Your task to perform on an android device: Open Maps and search for coffee Image 0: 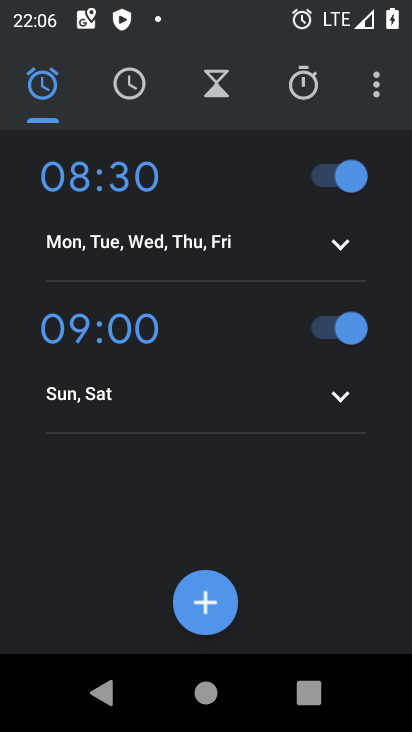
Step 0: press home button
Your task to perform on an android device: Open Maps and search for coffee Image 1: 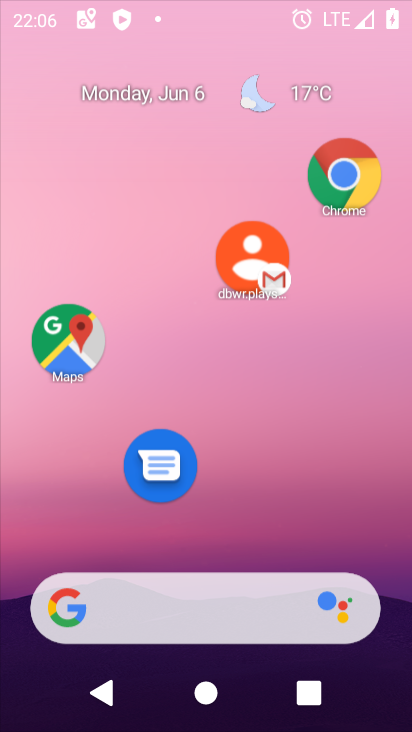
Step 1: drag from (231, 420) to (2, 312)
Your task to perform on an android device: Open Maps and search for coffee Image 2: 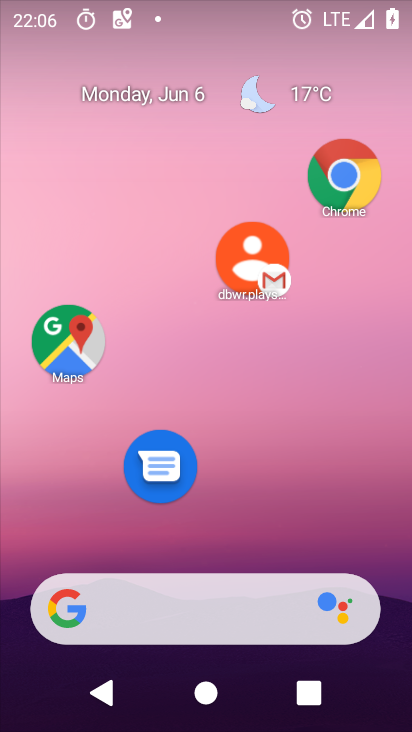
Step 2: click (15, 331)
Your task to perform on an android device: Open Maps and search for coffee Image 3: 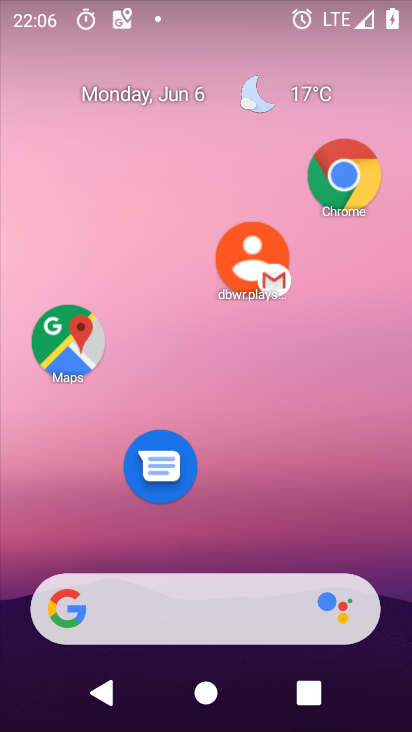
Step 3: click (43, 340)
Your task to perform on an android device: Open Maps and search for coffee Image 4: 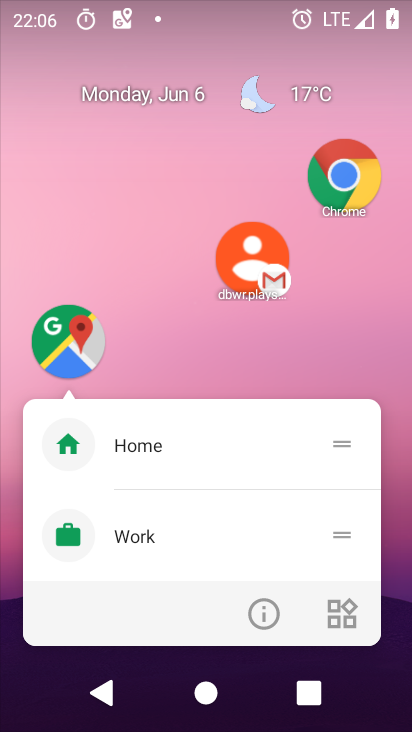
Step 4: click (264, 595)
Your task to perform on an android device: Open Maps and search for coffee Image 5: 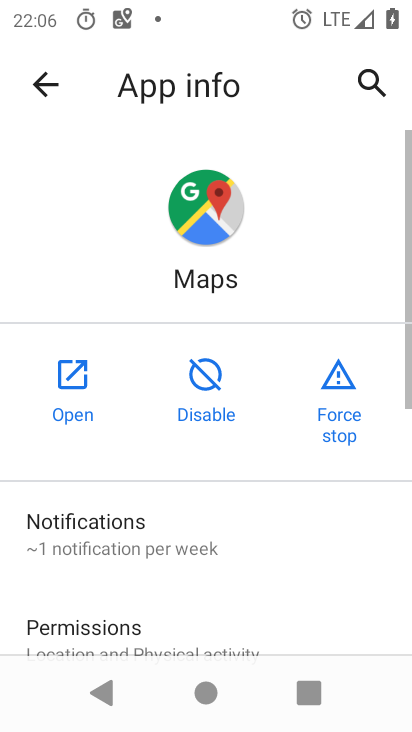
Step 5: click (17, 357)
Your task to perform on an android device: Open Maps and search for coffee Image 6: 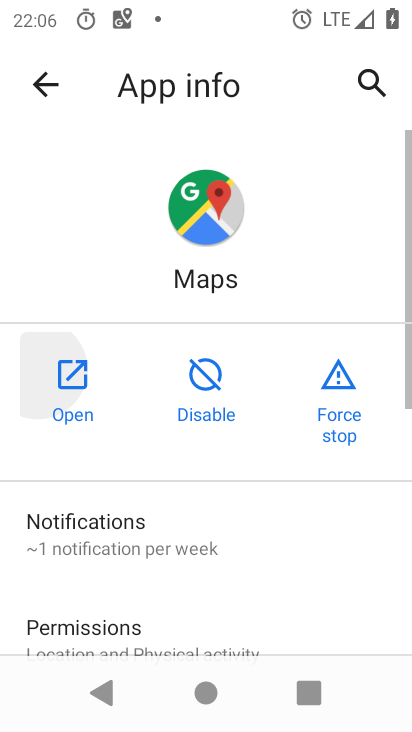
Step 6: click (42, 360)
Your task to perform on an android device: Open Maps and search for coffee Image 7: 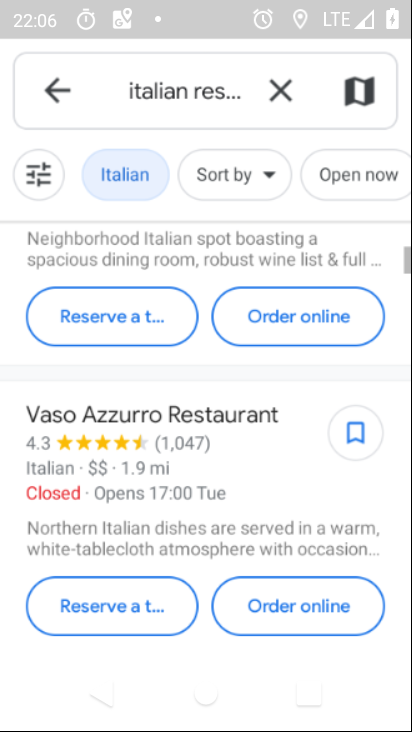
Step 7: drag from (222, 509) to (382, 126)
Your task to perform on an android device: Open Maps and search for coffee Image 8: 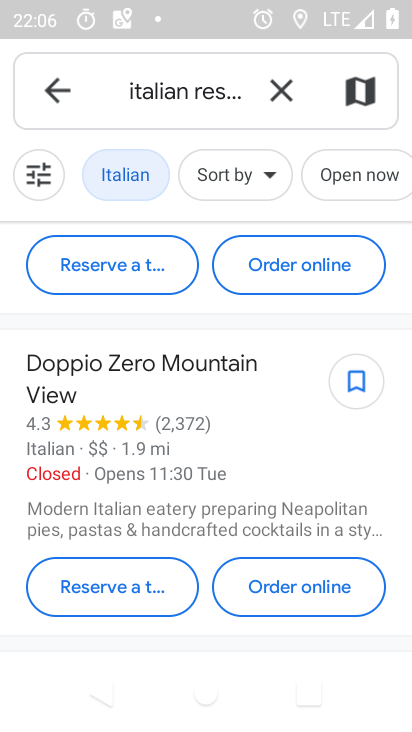
Step 8: click (283, 106)
Your task to perform on an android device: Open Maps and search for coffee Image 9: 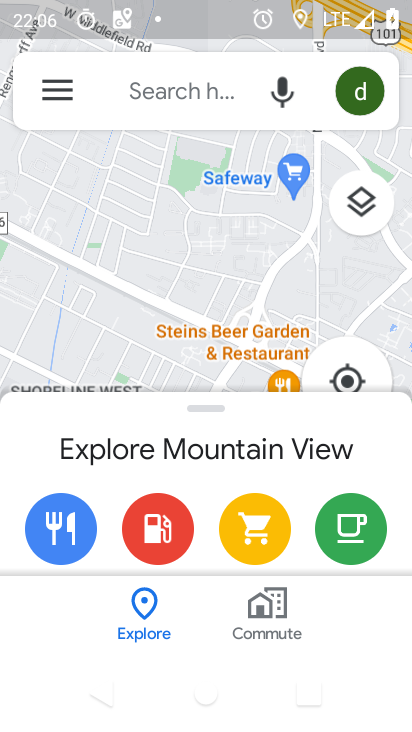
Step 9: click (132, 92)
Your task to perform on an android device: Open Maps and search for coffee Image 10: 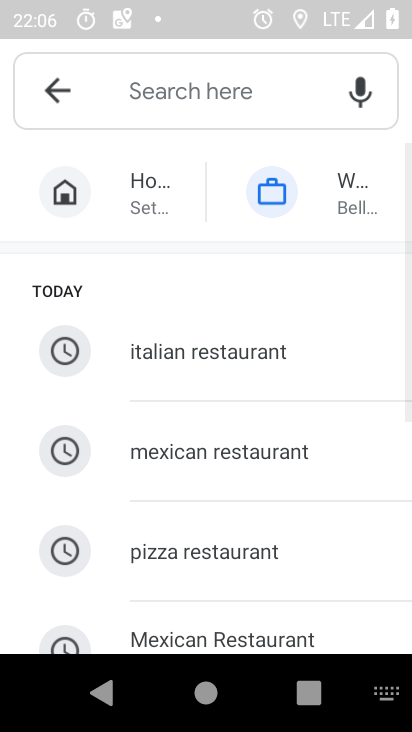
Step 10: drag from (216, 514) to (279, 27)
Your task to perform on an android device: Open Maps and search for coffee Image 11: 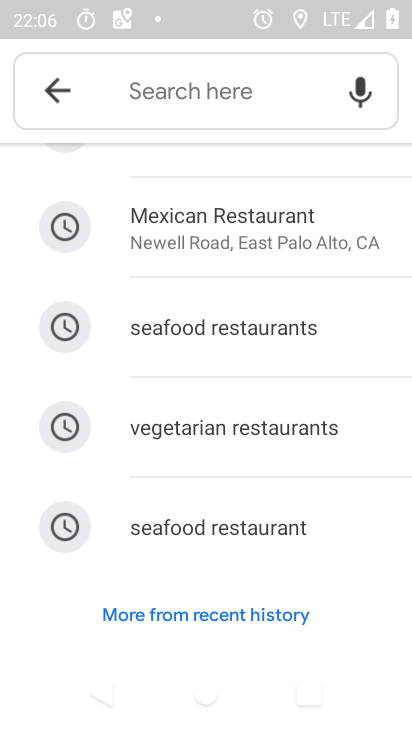
Step 11: drag from (177, 203) to (377, 731)
Your task to perform on an android device: Open Maps and search for coffee Image 12: 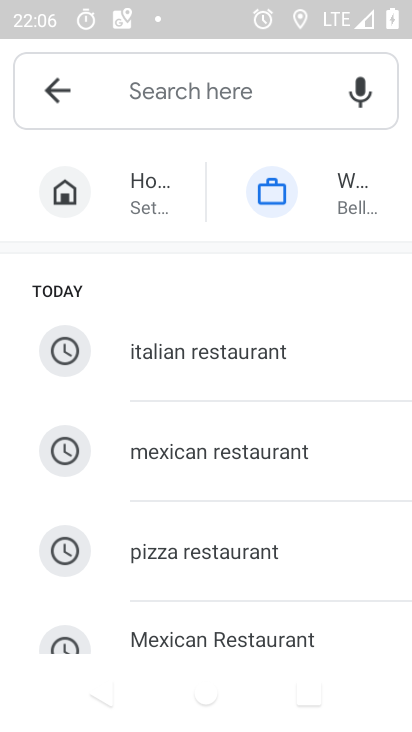
Step 12: click (119, 81)
Your task to perform on an android device: Open Maps and search for coffee Image 13: 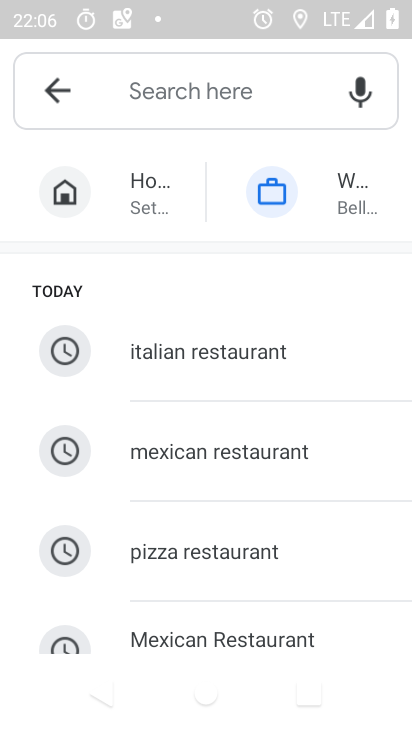
Step 13: type "coffee"
Your task to perform on an android device: Open Maps and search for coffee Image 14: 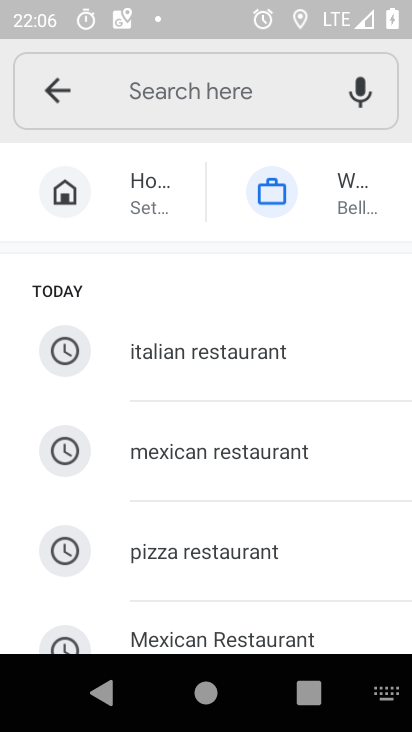
Step 14: type ""
Your task to perform on an android device: Open Maps and search for coffee Image 15: 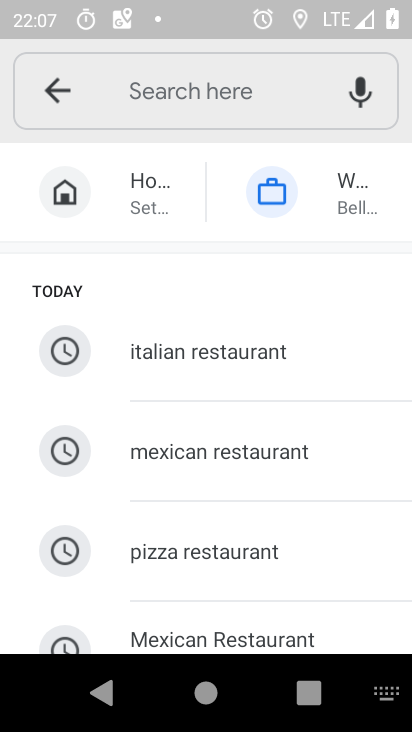
Step 15: click (180, 97)
Your task to perform on an android device: Open Maps and search for coffee Image 16: 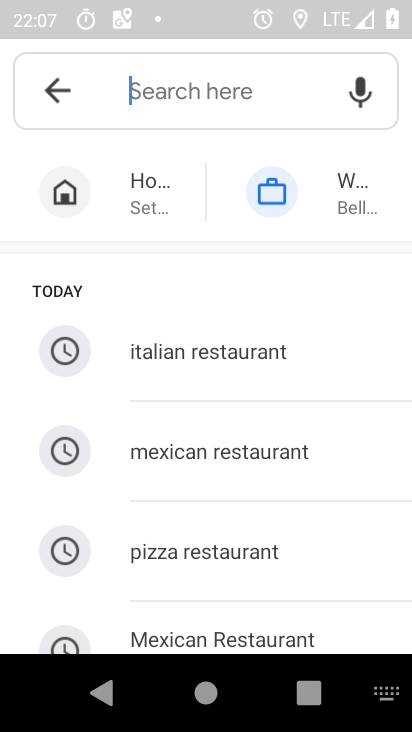
Step 16: type "coffee"
Your task to perform on an android device: Open Maps and search for coffee Image 17: 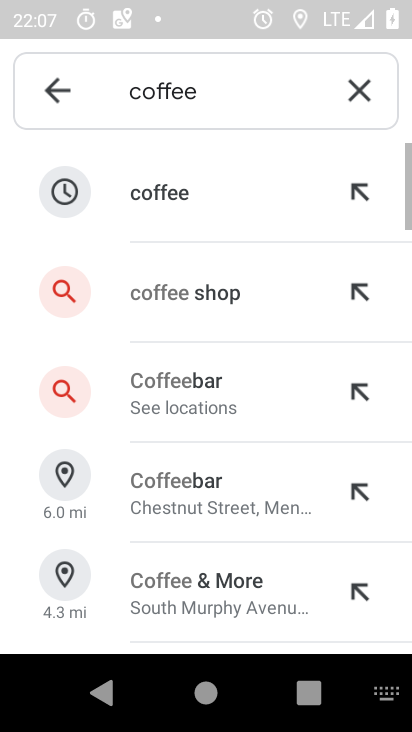
Step 17: click (122, 213)
Your task to perform on an android device: Open Maps and search for coffee Image 18: 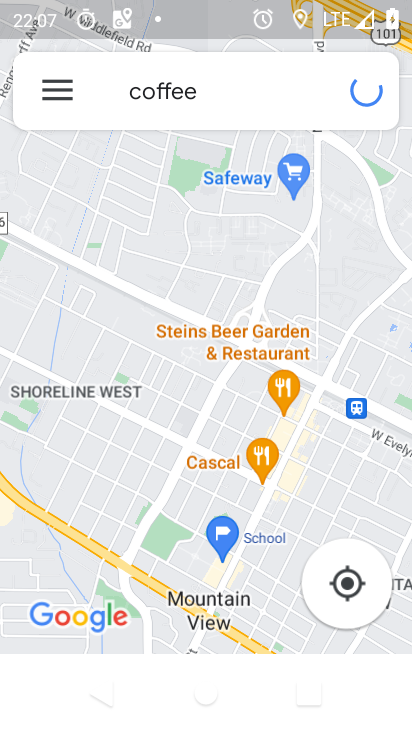
Step 18: task complete